Your task to perform on an android device: delete the emails in spam in the gmail app Image 0: 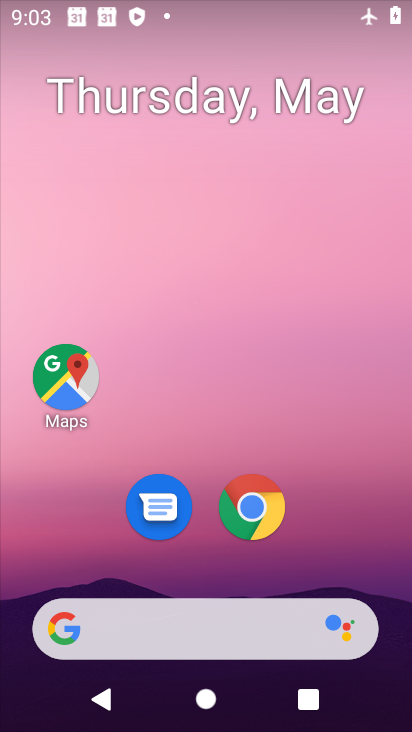
Step 0: drag from (281, 607) to (371, 132)
Your task to perform on an android device: delete the emails in spam in the gmail app Image 1: 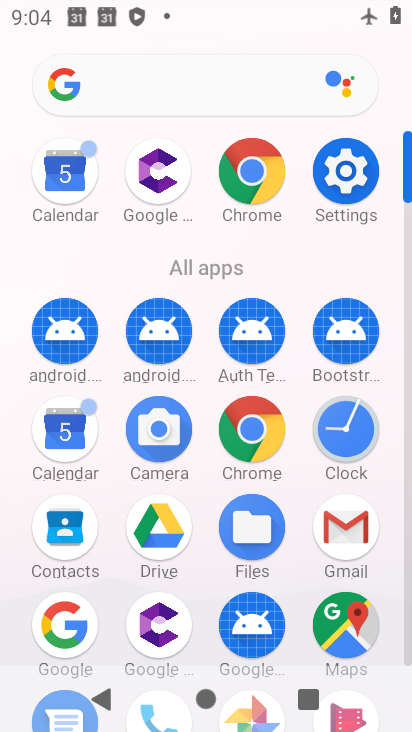
Step 1: click (347, 524)
Your task to perform on an android device: delete the emails in spam in the gmail app Image 2: 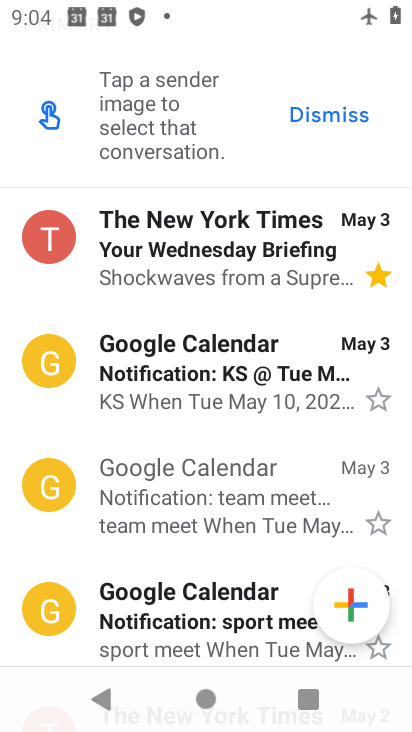
Step 2: drag from (193, 310) to (243, 726)
Your task to perform on an android device: delete the emails in spam in the gmail app Image 3: 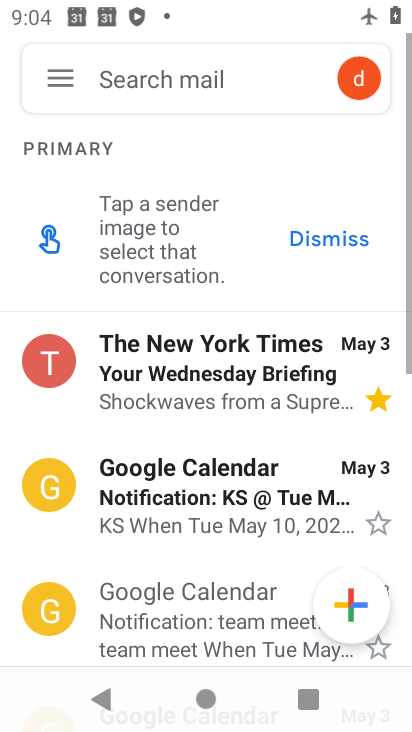
Step 3: click (64, 86)
Your task to perform on an android device: delete the emails in spam in the gmail app Image 4: 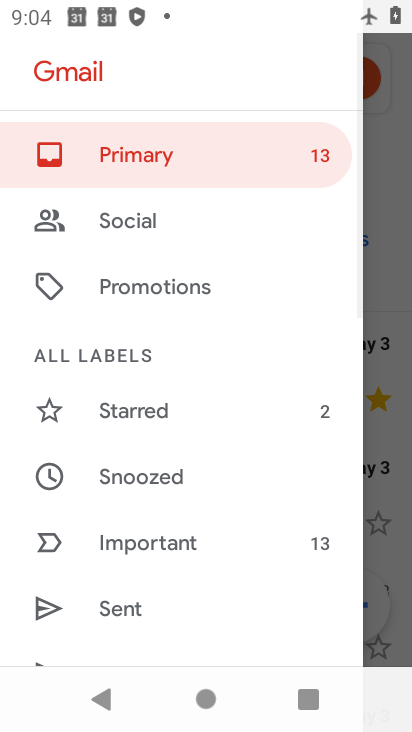
Step 4: drag from (184, 536) to (230, 232)
Your task to perform on an android device: delete the emails in spam in the gmail app Image 5: 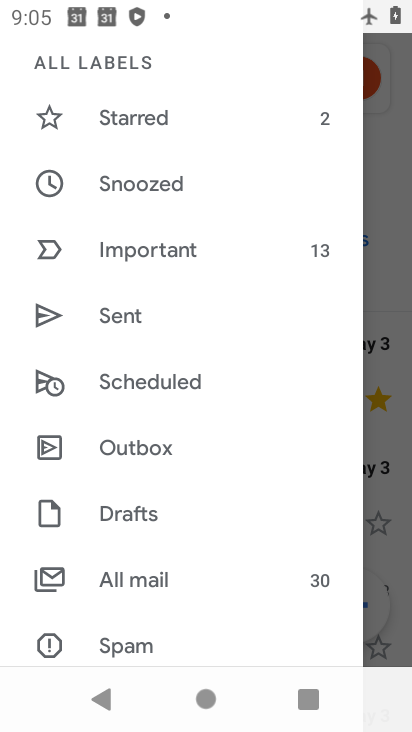
Step 5: drag from (162, 553) to (186, 305)
Your task to perform on an android device: delete the emails in spam in the gmail app Image 6: 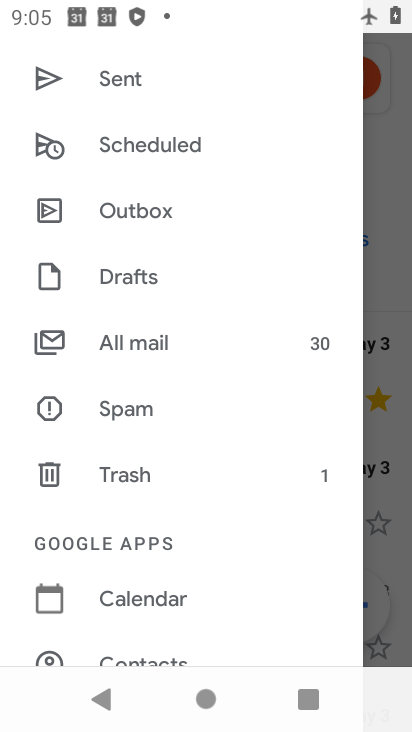
Step 6: click (189, 415)
Your task to perform on an android device: delete the emails in spam in the gmail app Image 7: 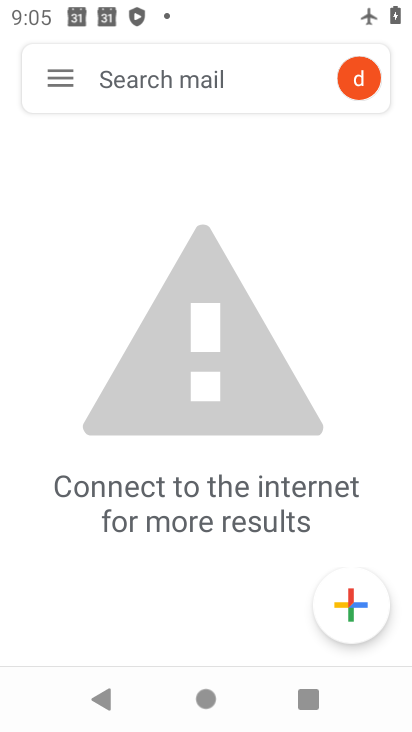
Step 7: task complete